Your task to perform on an android device: turn on sleep mode Image 0: 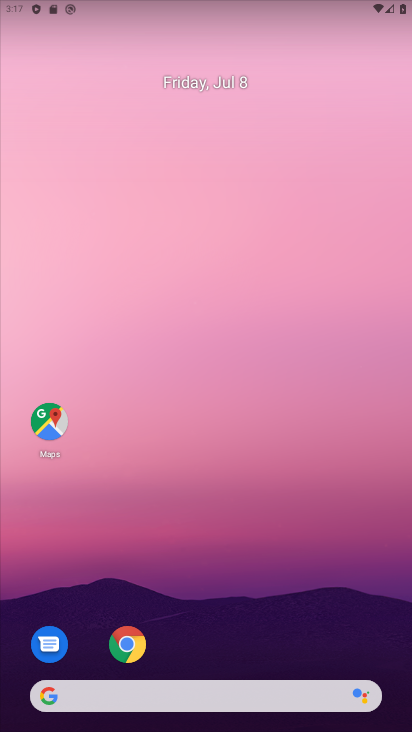
Step 0: drag from (289, 440) to (222, 166)
Your task to perform on an android device: turn on sleep mode Image 1: 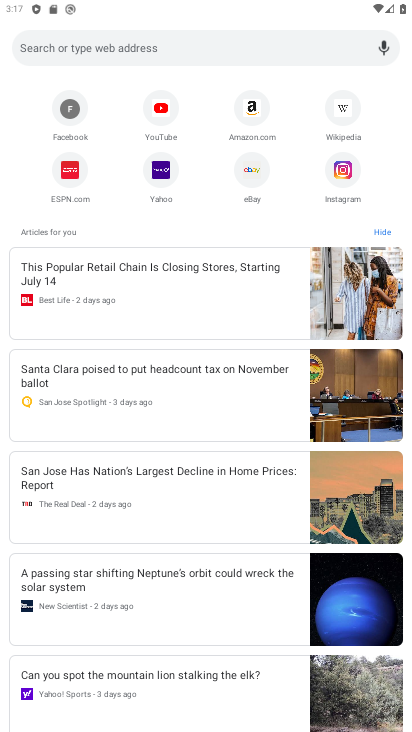
Step 1: drag from (236, 450) to (129, 117)
Your task to perform on an android device: turn on sleep mode Image 2: 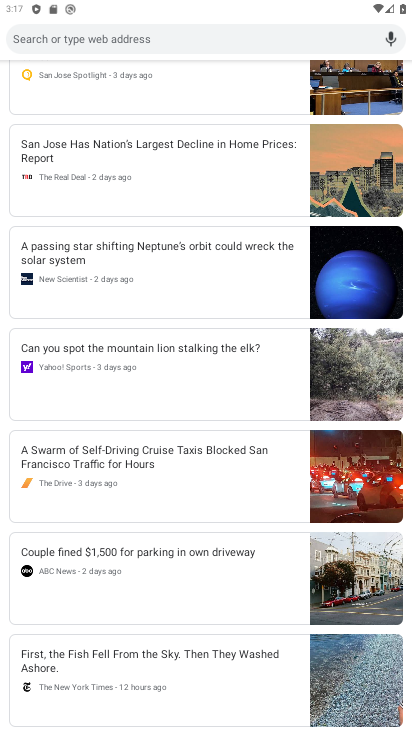
Step 2: press back button
Your task to perform on an android device: turn on sleep mode Image 3: 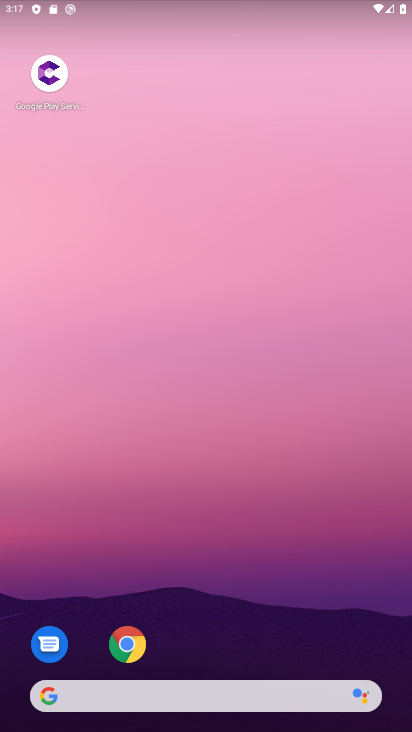
Step 3: drag from (178, 446) to (188, 17)
Your task to perform on an android device: turn on sleep mode Image 4: 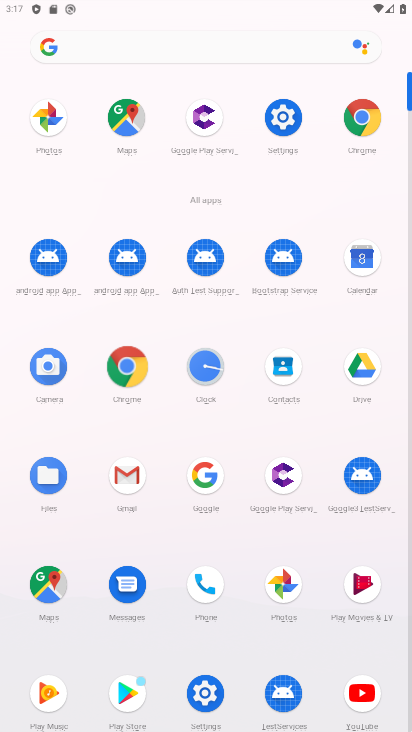
Step 4: click (284, 125)
Your task to perform on an android device: turn on sleep mode Image 5: 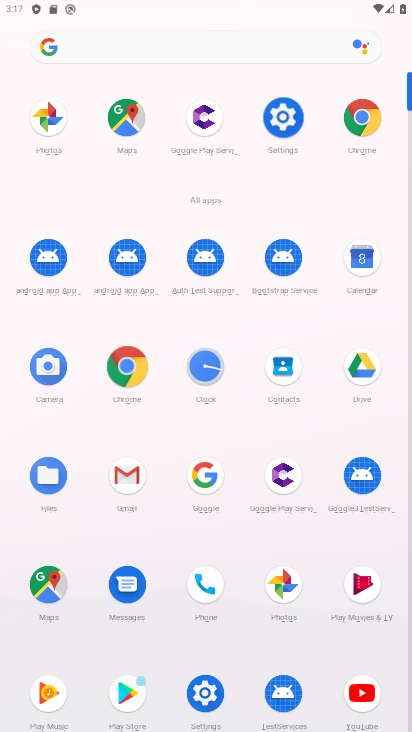
Step 5: click (284, 122)
Your task to perform on an android device: turn on sleep mode Image 6: 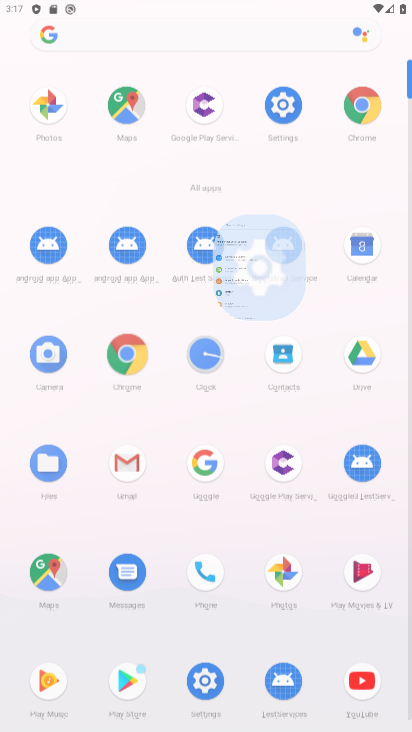
Step 6: click (285, 121)
Your task to perform on an android device: turn on sleep mode Image 7: 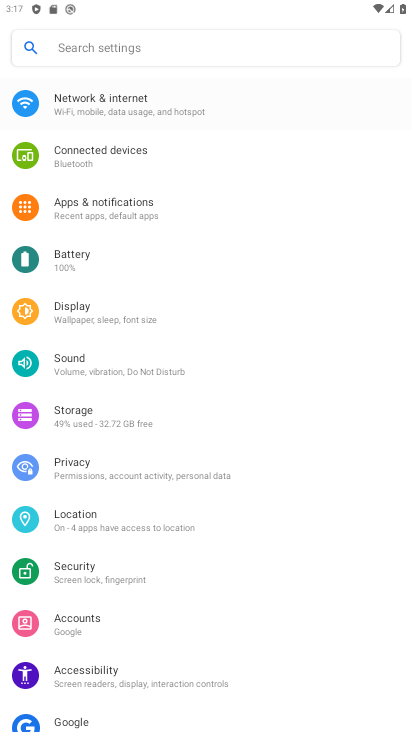
Step 7: click (290, 120)
Your task to perform on an android device: turn on sleep mode Image 8: 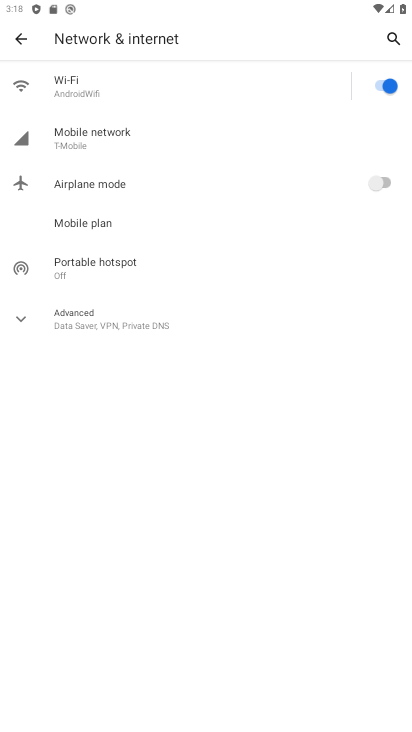
Step 8: click (13, 31)
Your task to perform on an android device: turn on sleep mode Image 9: 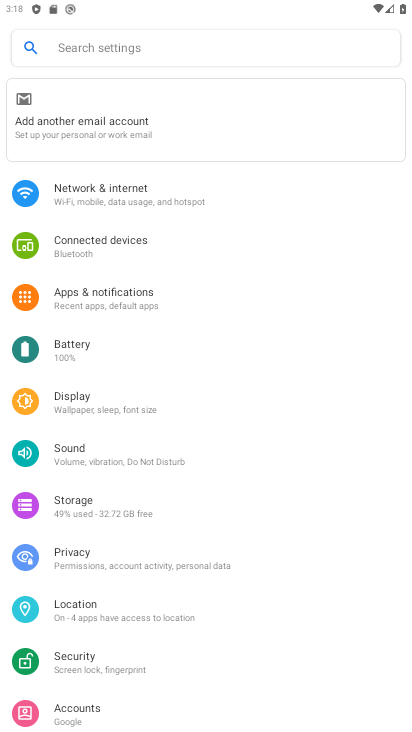
Step 9: click (96, 410)
Your task to perform on an android device: turn on sleep mode Image 10: 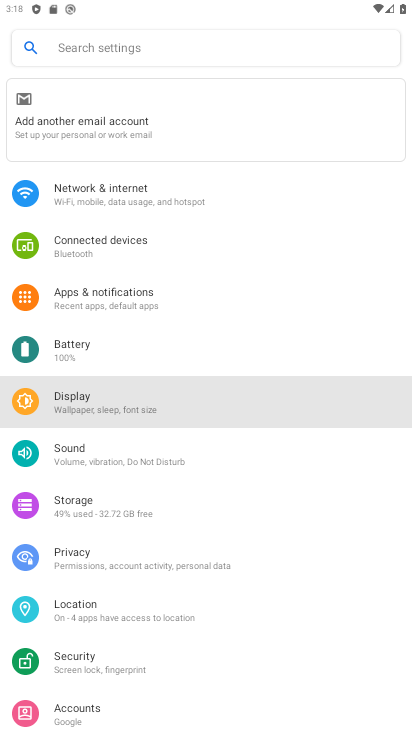
Step 10: click (82, 385)
Your task to perform on an android device: turn on sleep mode Image 11: 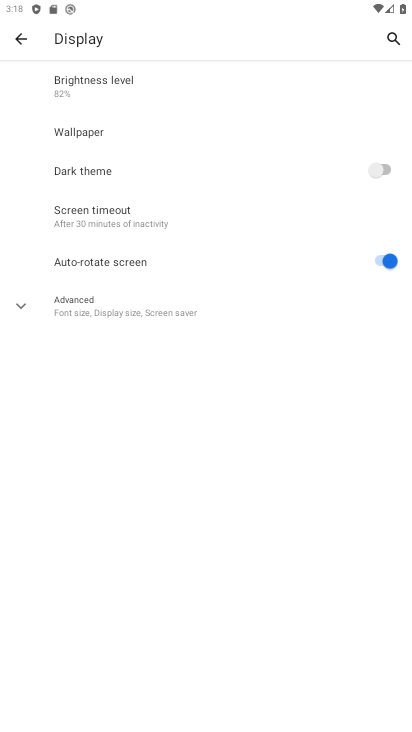
Step 11: click (96, 209)
Your task to perform on an android device: turn on sleep mode Image 12: 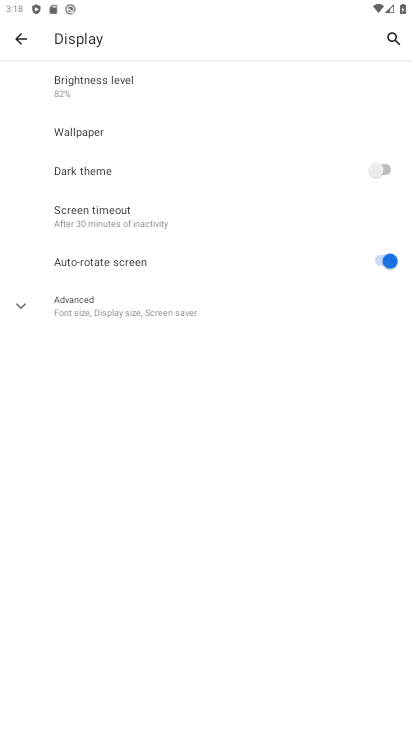
Step 12: click (122, 215)
Your task to perform on an android device: turn on sleep mode Image 13: 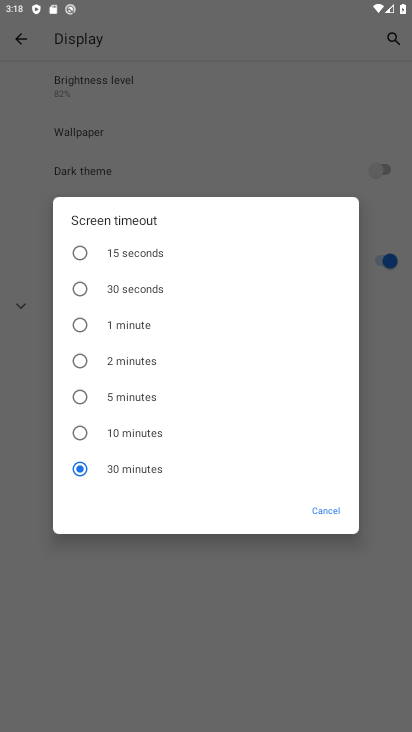
Step 13: task complete